Your task to perform on an android device: Open Google Chrome Image 0: 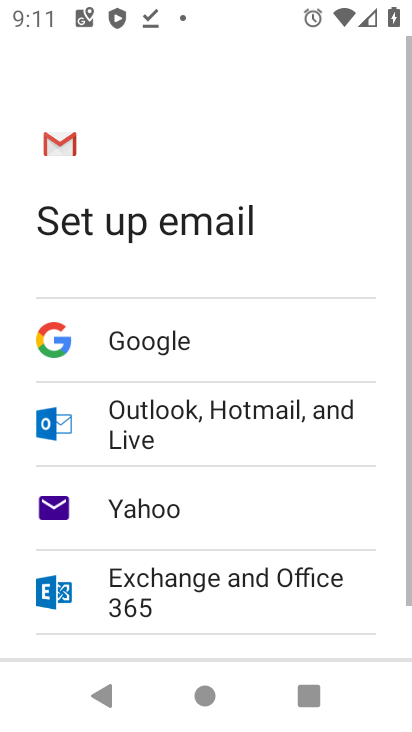
Step 0: press back button
Your task to perform on an android device: Open Google Chrome Image 1: 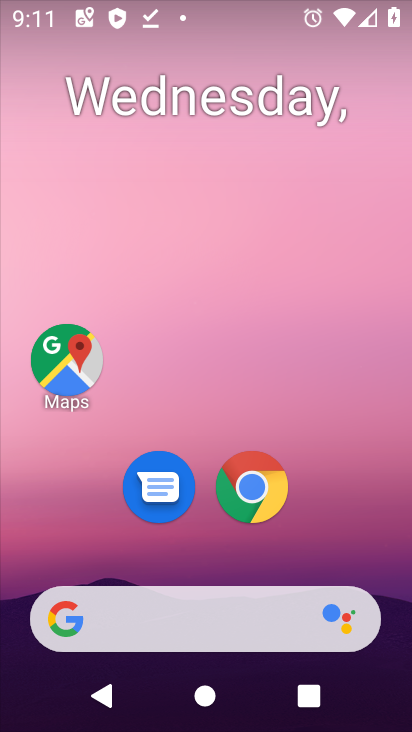
Step 1: drag from (245, 607) to (149, 3)
Your task to perform on an android device: Open Google Chrome Image 2: 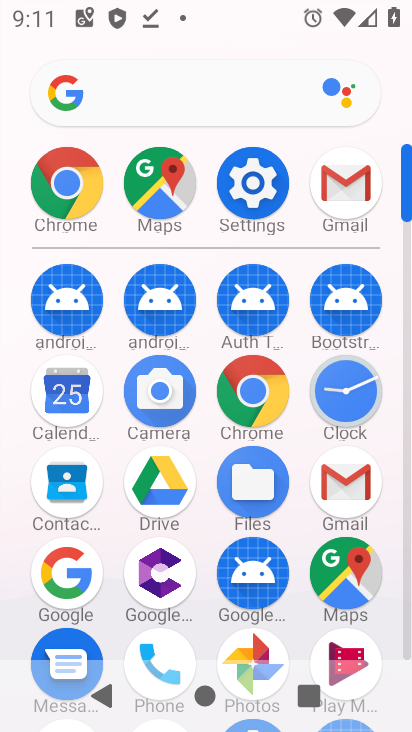
Step 2: click (65, 190)
Your task to perform on an android device: Open Google Chrome Image 3: 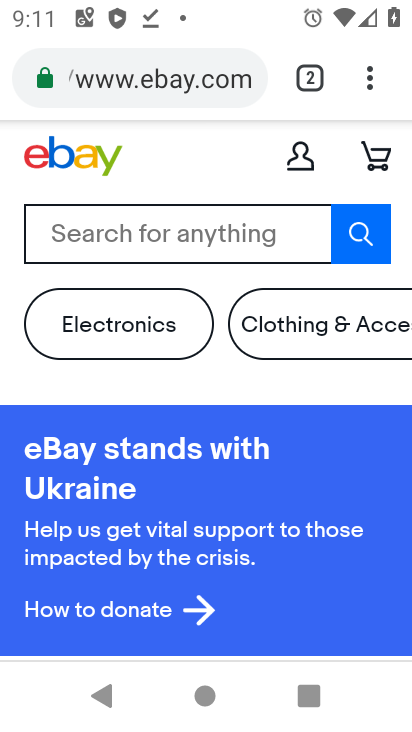
Step 3: click (362, 76)
Your task to perform on an android device: Open Google Chrome Image 4: 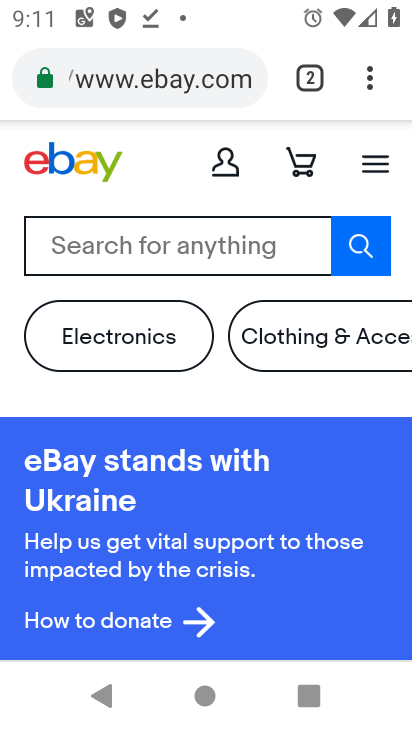
Step 4: drag from (369, 85) to (107, 158)
Your task to perform on an android device: Open Google Chrome Image 5: 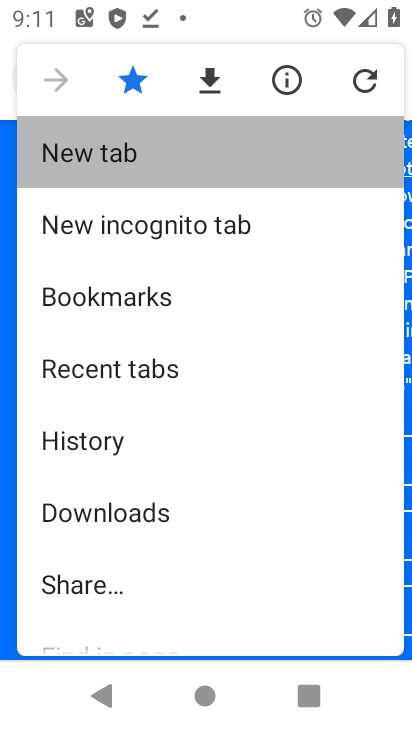
Step 5: click (107, 158)
Your task to perform on an android device: Open Google Chrome Image 6: 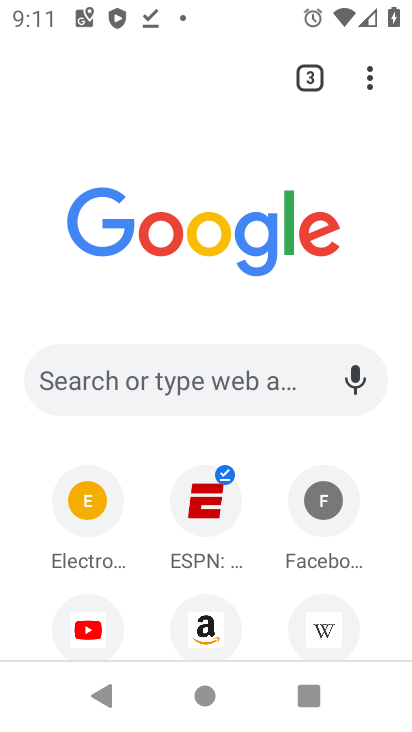
Step 6: task complete